Your task to perform on an android device: turn off notifications settings in the gmail app Image 0: 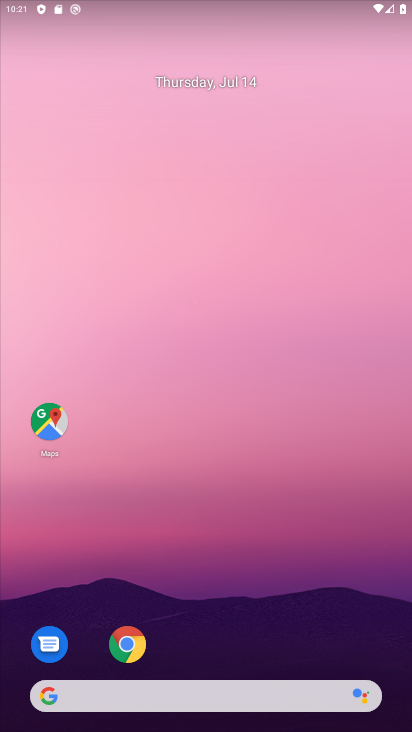
Step 0: drag from (205, 686) to (181, 102)
Your task to perform on an android device: turn off notifications settings in the gmail app Image 1: 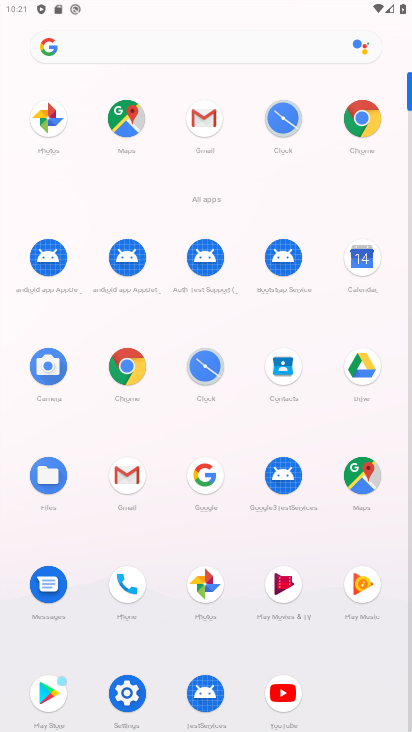
Step 1: click (121, 475)
Your task to perform on an android device: turn off notifications settings in the gmail app Image 2: 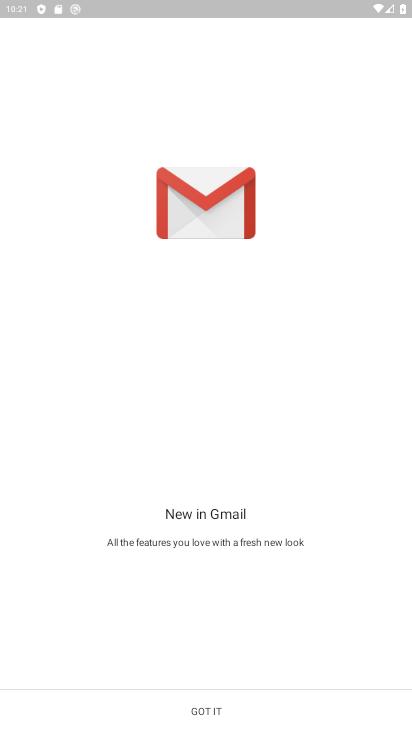
Step 2: click (182, 705)
Your task to perform on an android device: turn off notifications settings in the gmail app Image 3: 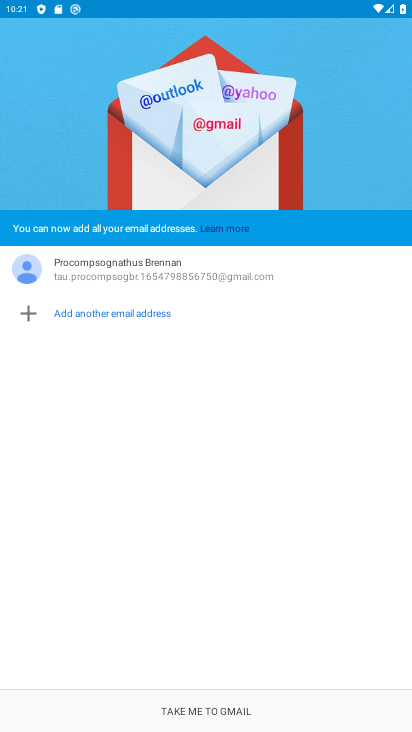
Step 3: click (227, 712)
Your task to perform on an android device: turn off notifications settings in the gmail app Image 4: 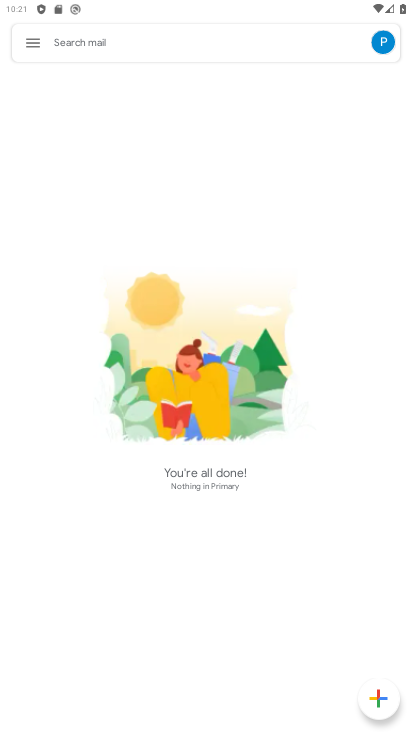
Step 4: click (35, 42)
Your task to perform on an android device: turn off notifications settings in the gmail app Image 5: 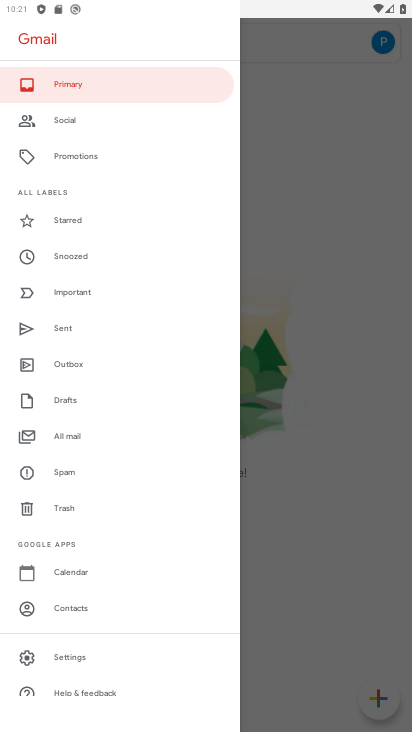
Step 5: click (94, 649)
Your task to perform on an android device: turn off notifications settings in the gmail app Image 6: 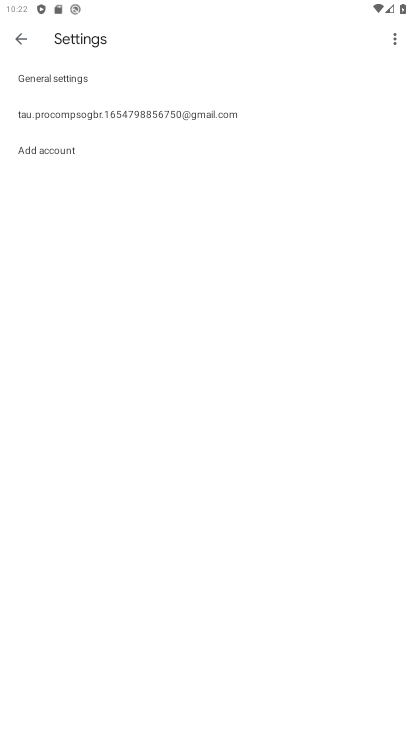
Step 6: click (104, 113)
Your task to perform on an android device: turn off notifications settings in the gmail app Image 7: 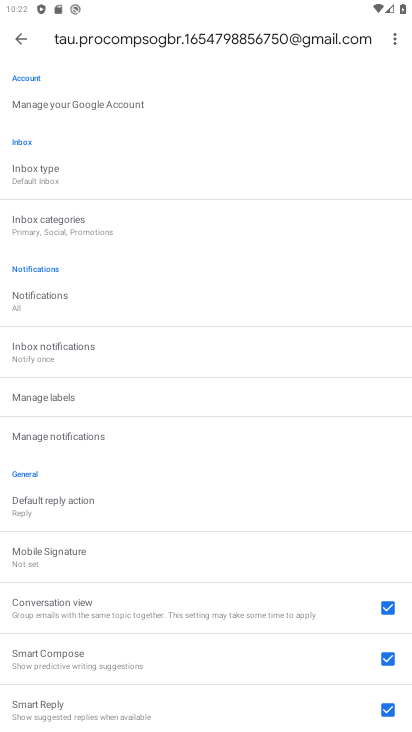
Step 7: drag from (104, 546) to (83, 123)
Your task to perform on an android device: turn off notifications settings in the gmail app Image 8: 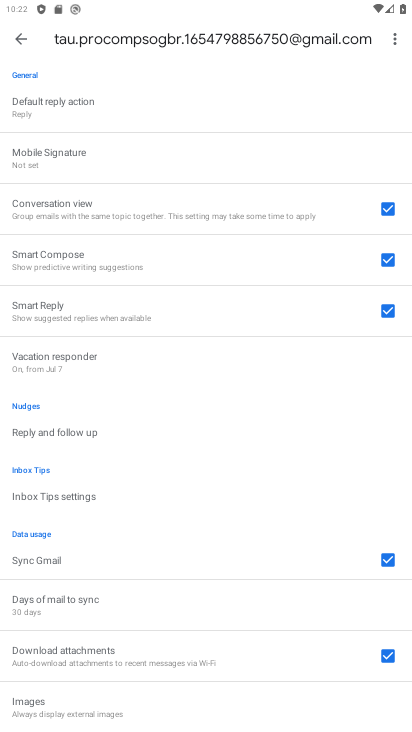
Step 8: drag from (171, 560) to (125, 169)
Your task to perform on an android device: turn off notifications settings in the gmail app Image 9: 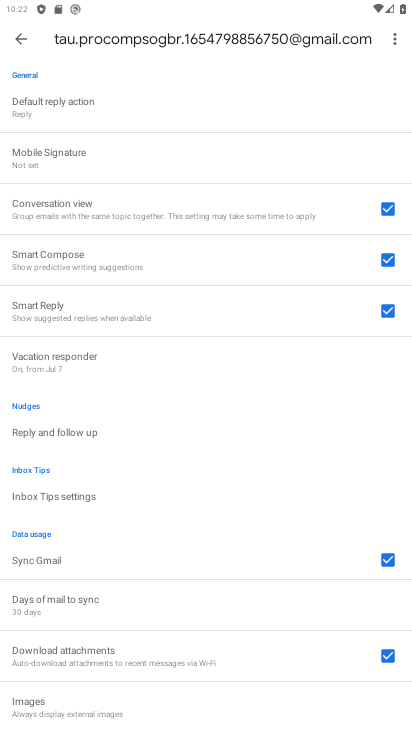
Step 9: drag from (108, 188) to (124, 523)
Your task to perform on an android device: turn off notifications settings in the gmail app Image 10: 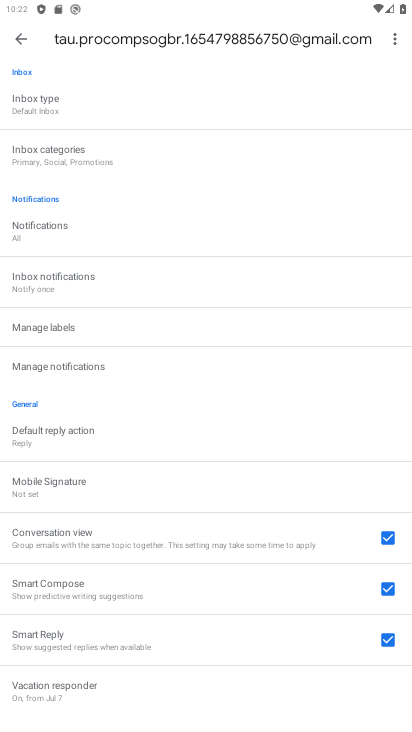
Step 10: click (91, 364)
Your task to perform on an android device: turn off notifications settings in the gmail app Image 11: 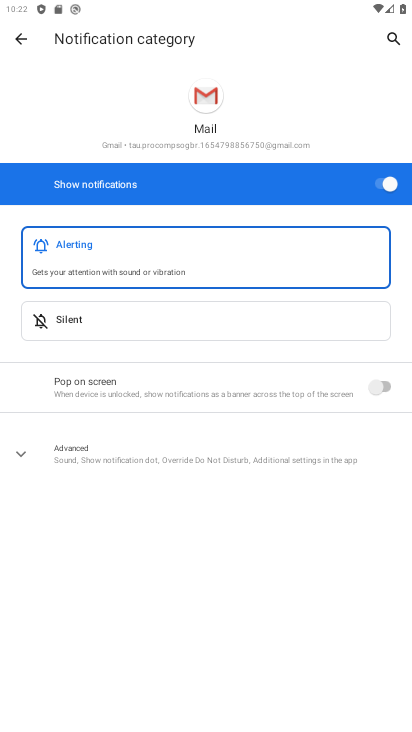
Step 11: click (381, 179)
Your task to perform on an android device: turn off notifications settings in the gmail app Image 12: 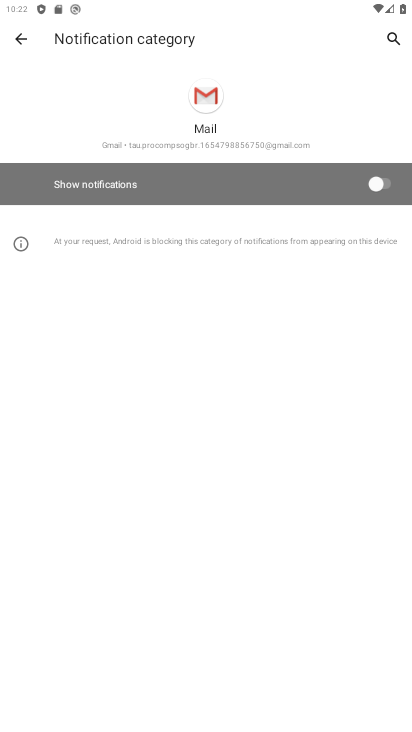
Step 12: task complete